Your task to perform on an android device: remove spam from my inbox in the gmail app Image 0: 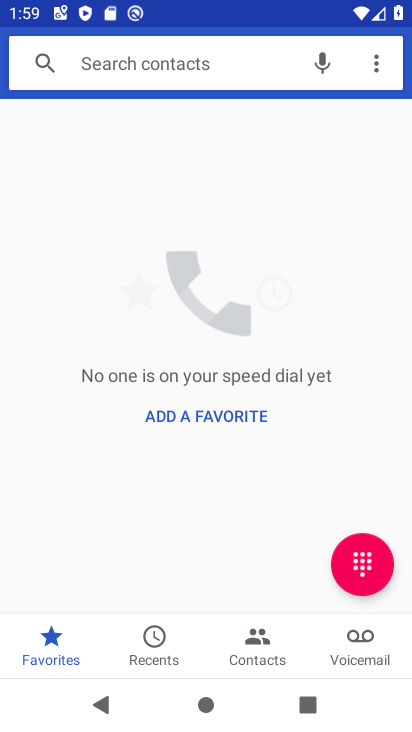
Step 0: press home button
Your task to perform on an android device: remove spam from my inbox in the gmail app Image 1: 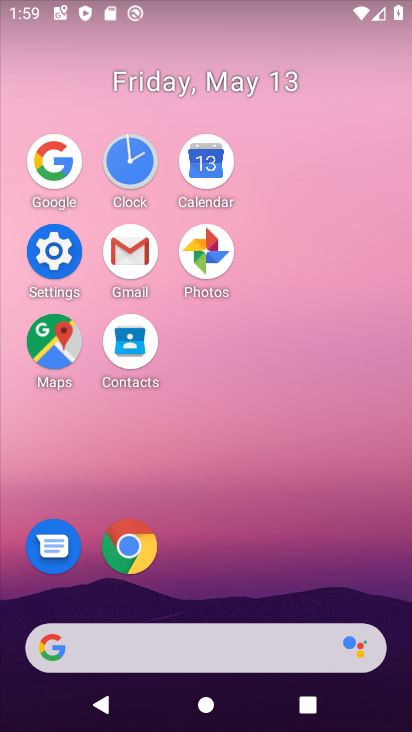
Step 1: click (148, 254)
Your task to perform on an android device: remove spam from my inbox in the gmail app Image 2: 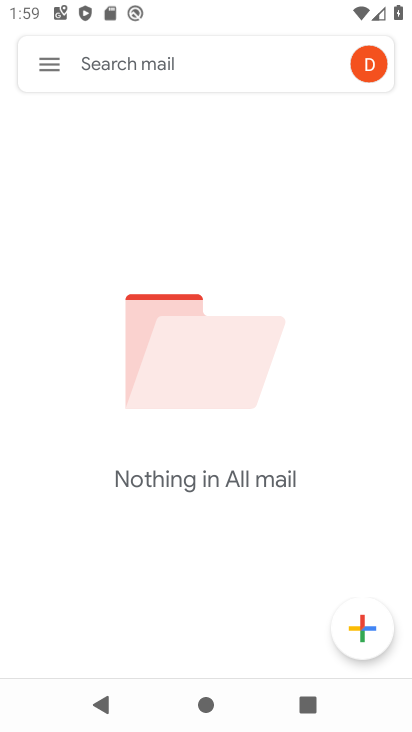
Step 2: click (60, 69)
Your task to perform on an android device: remove spam from my inbox in the gmail app Image 3: 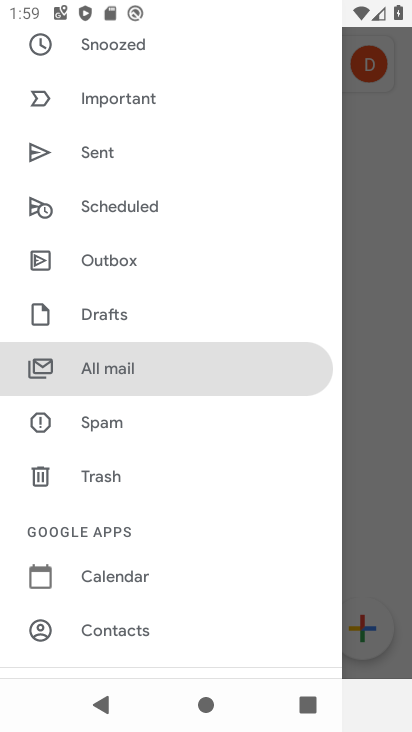
Step 3: click (132, 432)
Your task to perform on an android device: remove spam from my inbox in the gmail app Image 4: 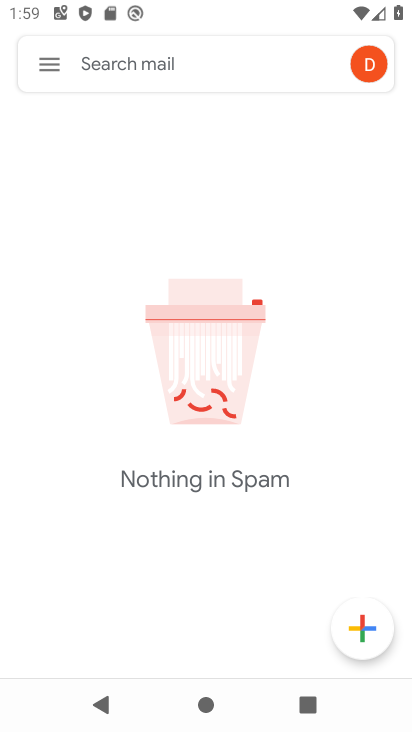
Step 4: task complete